Your task to perform on an android device: Go to Maps Image 0: 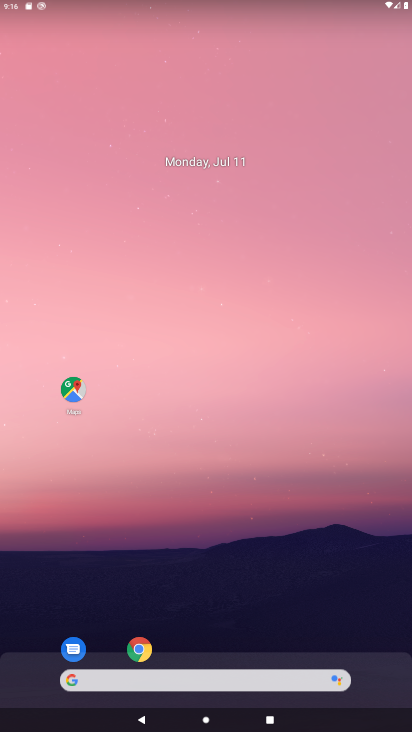
Step 0: click (76, 380)
Your task to perform on an android device: Go to Maps Image 1: 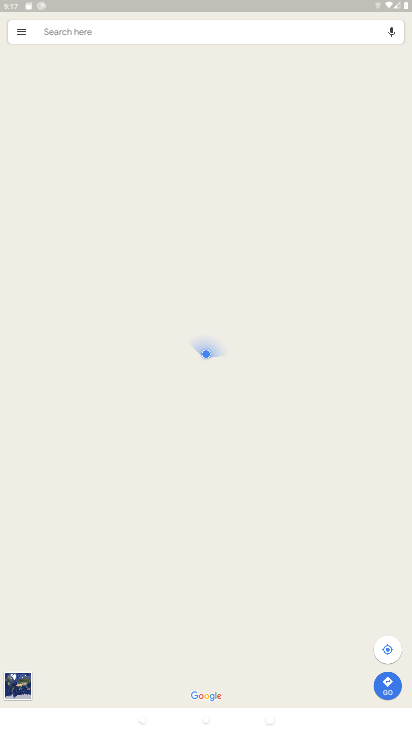
Step 1: task complete